Your task to perform on an android device: change text size in settings app Image 0: 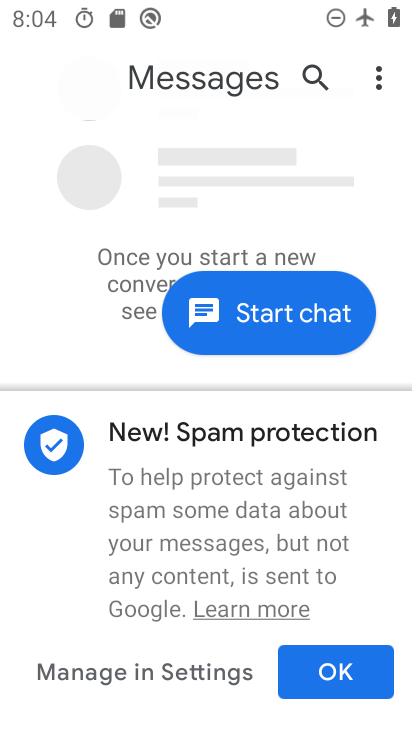
Step 0: press home button
Your task to perform on an android device: change text size in settings app Image 1: 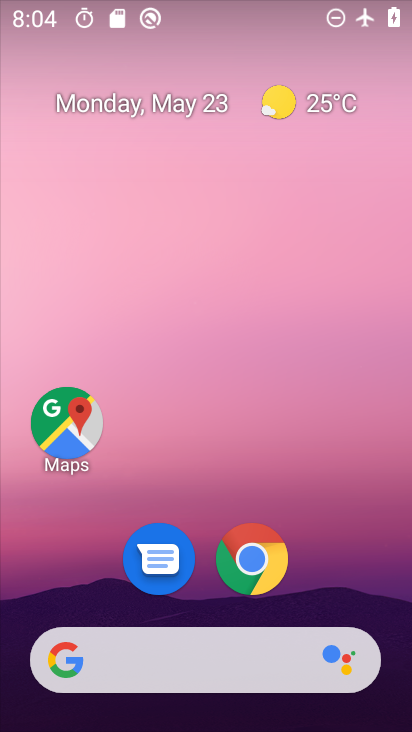
Step 1: drag from (393, 652) to (318, 2)
Your task to perform on an android device: change text size in settings app Image 2: 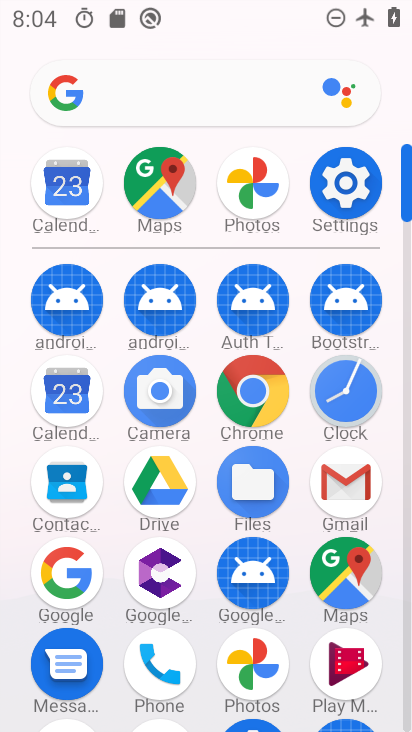
Step 2: click (330, 198)
Your task to perform on an android device: change text size in settings app Image 3: 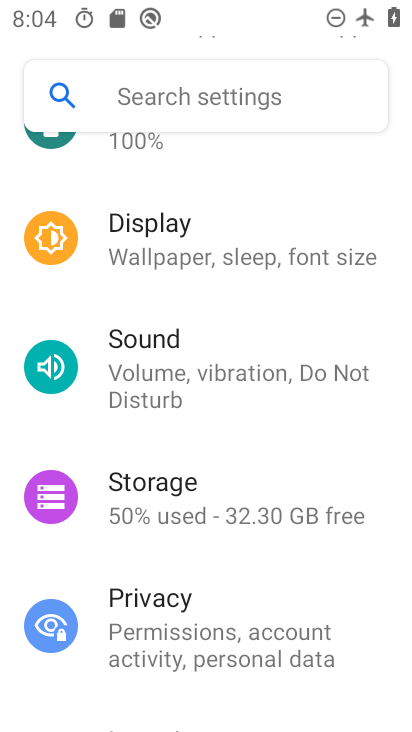
Step 3: click (138, 261)
Your task to perform on an android device: change text size in settings app Image 4: 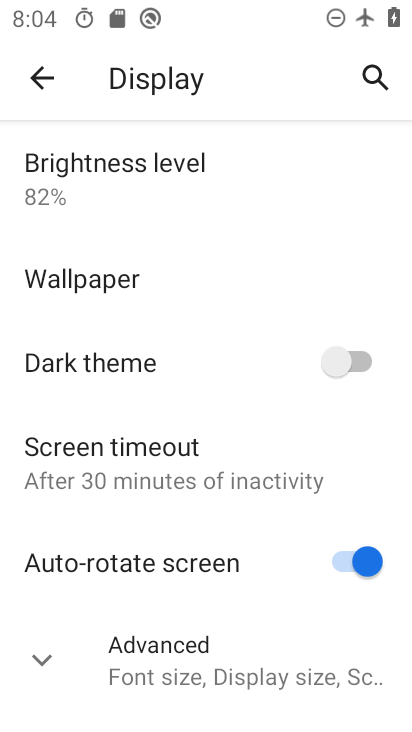
Step 4: click (113, 679)
Your task to perform on an android device: change text size in settings app Image 5: 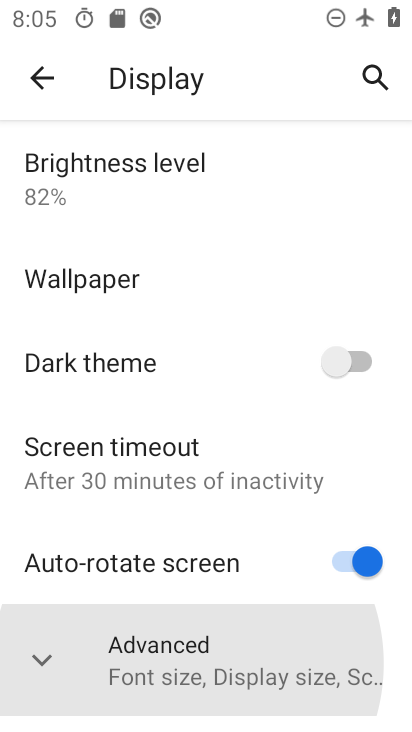
Step 5: drag from (137, 664) to (167, 117)
Your task to perform on an android device: change text size in settings app Image 6: 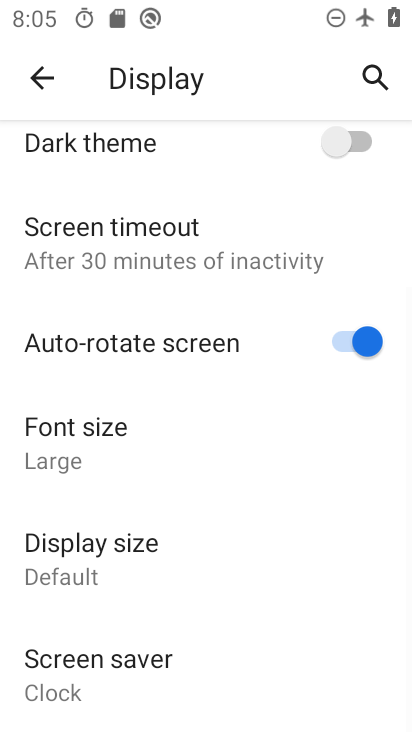
Step 6: click (104, 457)
Your task to perform on an android device: change text size in settings app Image 7: 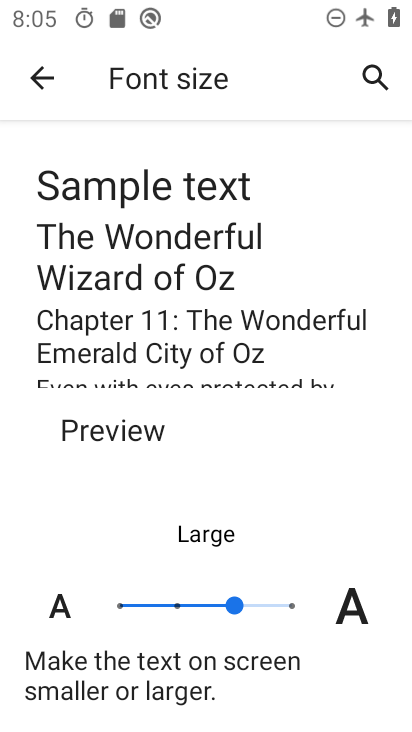
Step 7: click (178, 601)
Your task to perform on an android device: change text size in settings app Image 8: 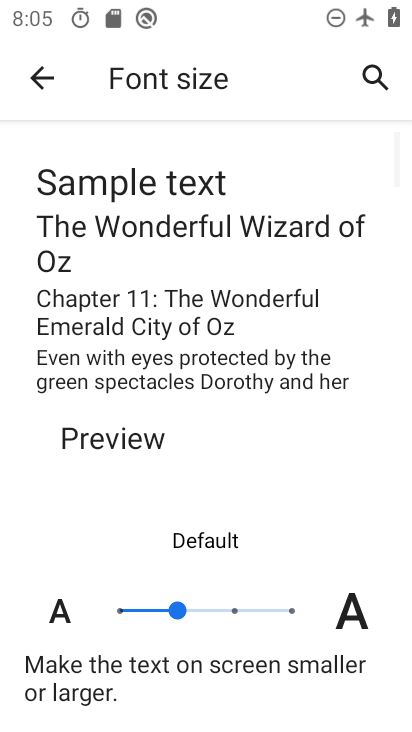
Step 8: task complete